Your task to perform on an android device: open chrome and create a bookmark for the current page Image 0: 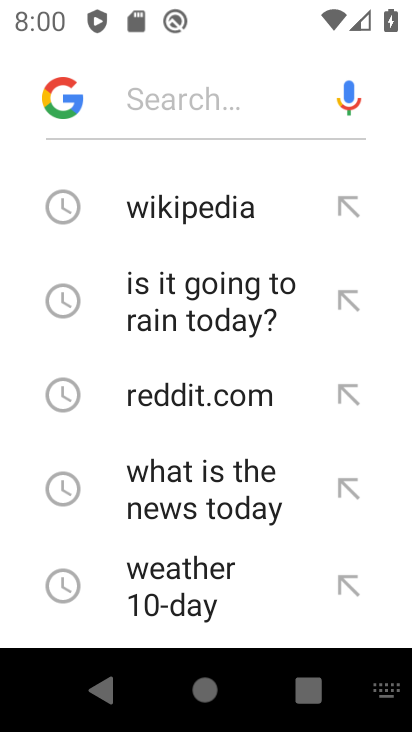
Step 0: press home button
Your task to perform on an android device: open chrome and create a bookmark for the current page Image 1: 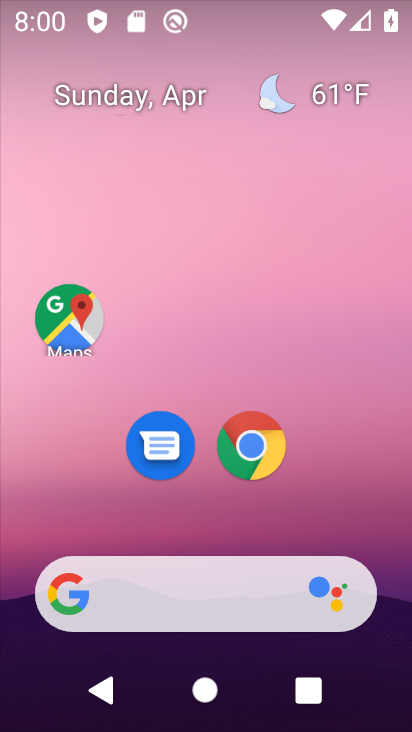
Step 1: click (241, 465)
Your task to perform on an android device: open chrome and create a bookmark for the current page Image 2: 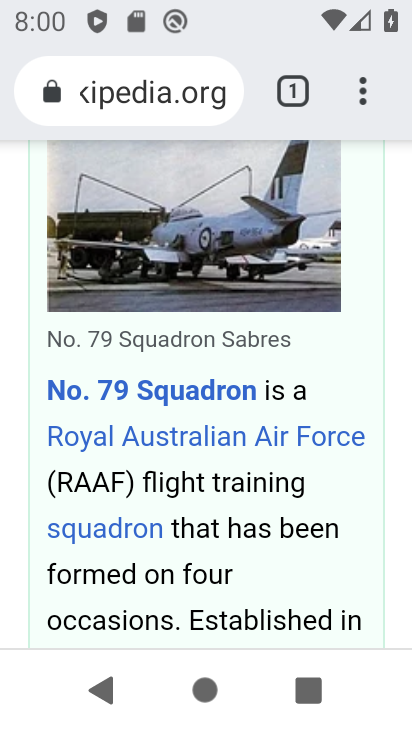
Step 2: click (296, 91)
Your task to perform on an android device: open chrome and create a bookmark for the current page Image 3: 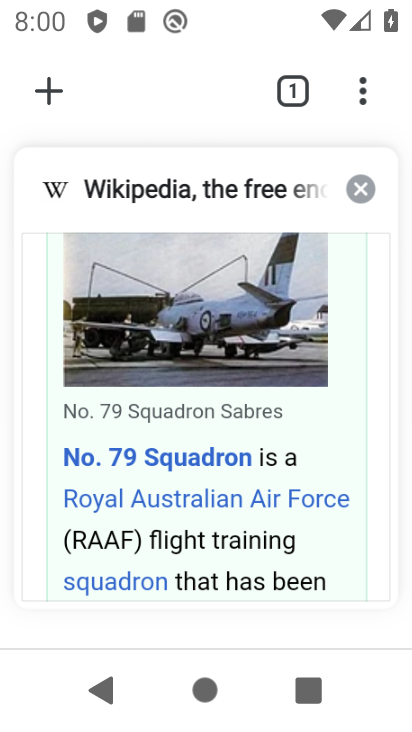
Step 3: click (47, 89)
Your task to perform on an android device: open chrome and create a bookmark for the current page Image 4: 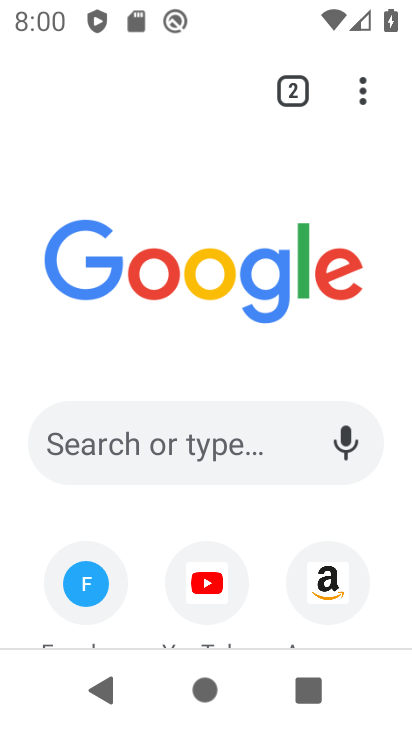
Step 4: click (174, 445)
Your task to perform on an android device: open chrome and create a bookmark for the current page Image 5: 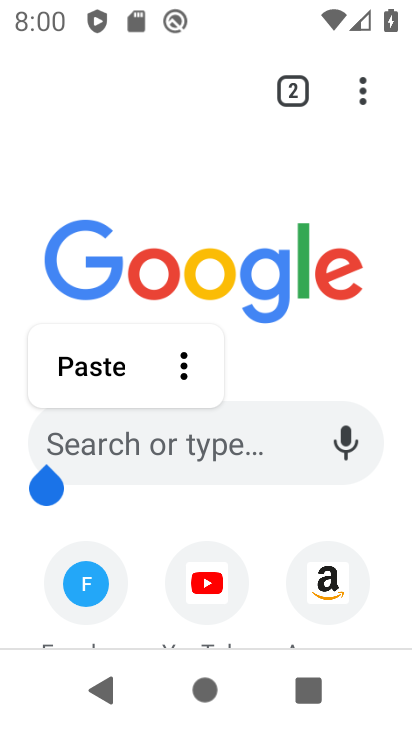
Step 5: type "fgjygfj"
Your task to perform on an android device: open chrome and create a bookmark for the current page Image 6: 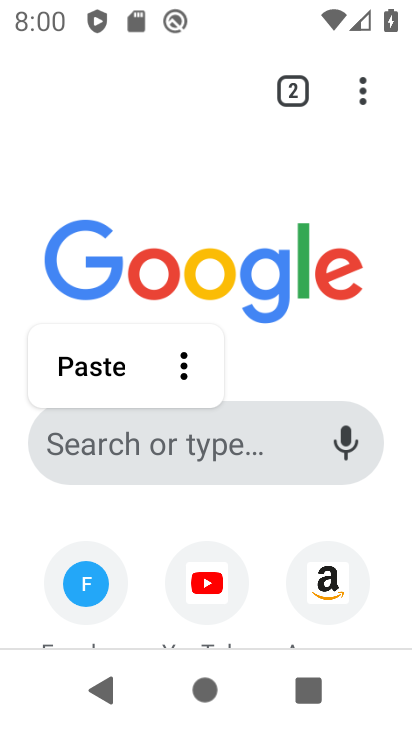
Step 6: click (152, 451)
Your task to perform on an android device: open chrome and create a bookmark for the current page Image 7: 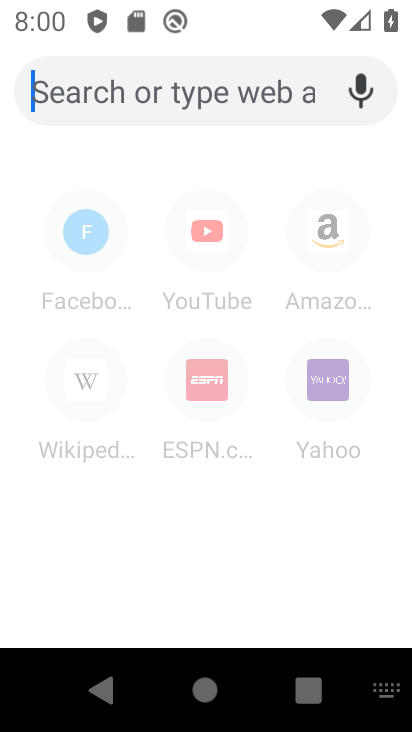
Step 7: type "gvgdjgf"
Your task to perform on an android device: open chrome and create a bookmark for the current page Image 8: 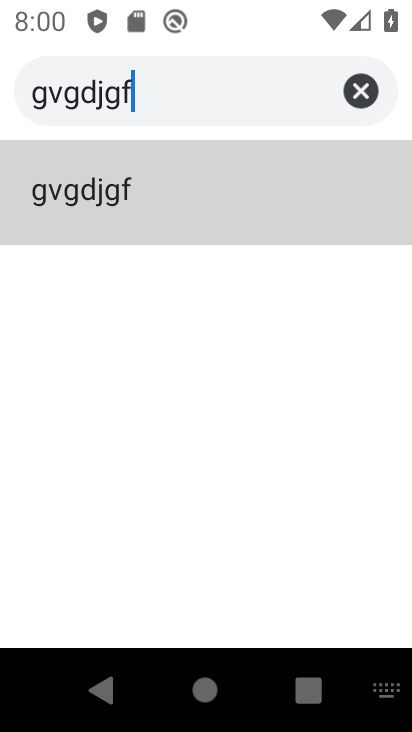
Step 8: click (207, 201)
Your task to perform on an android device: open chrome and create a bookmark for the current page Image 9: 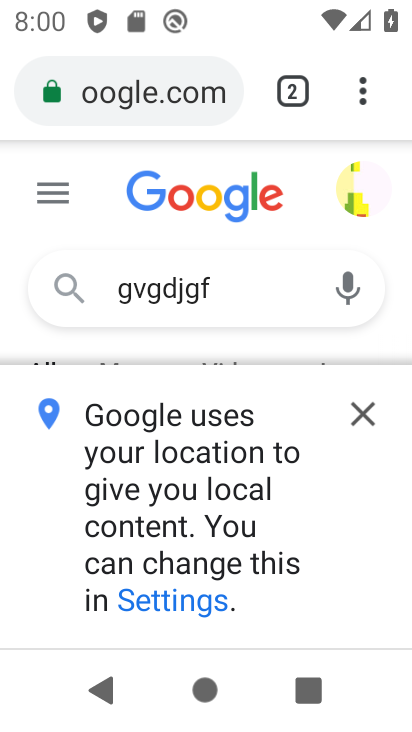
Step 9: click (356, 398)
Your task to perform on an android device: open chrome and create a bookmark for the current page Image 10: 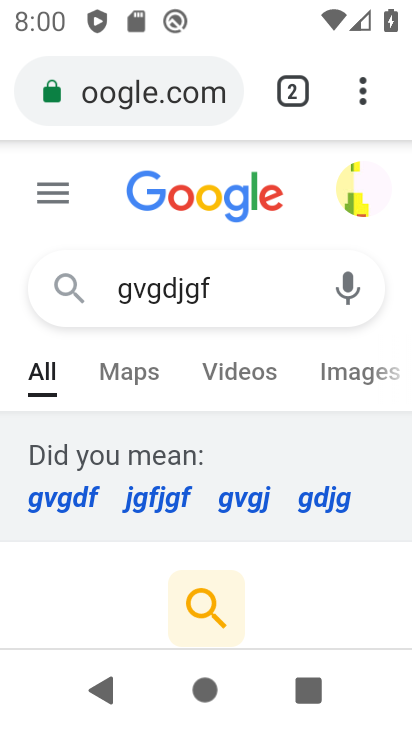
Step 10: drag from (191, 537) to (203, 212)
Your task to perform on an android device: open chrome and create a bookmark for the current page Image 11: 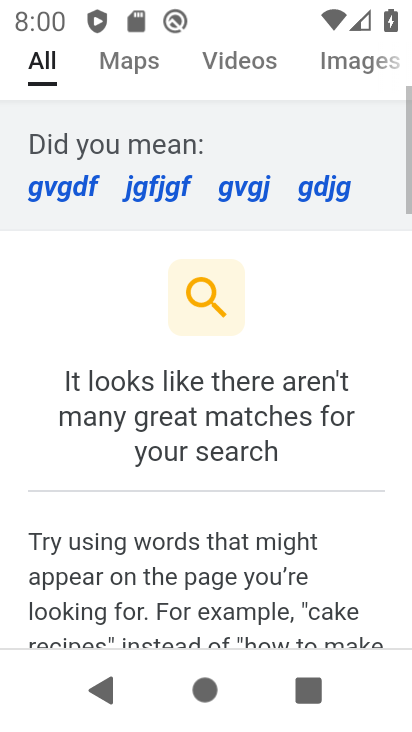
Step 11: drag from (210, 475) to (239, 161)
Your task to perform on an android device: open chrome and create a bookmark for the current page Image 12: 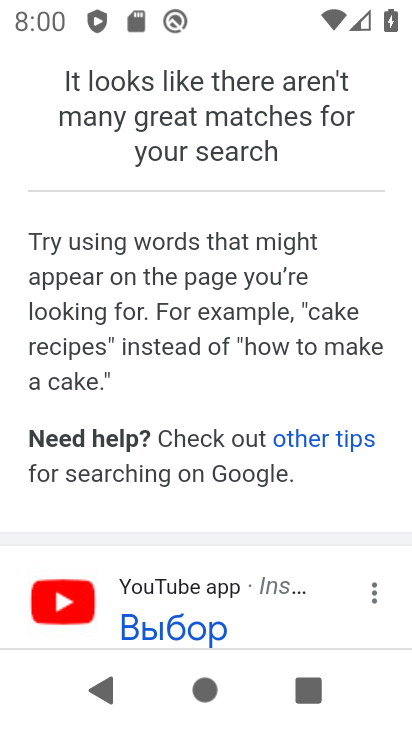
Step 12: drag from (213, 473) to (229, 293)
Your task to perform on an android device: open chrome and create a bookmark for the current page Image 13: 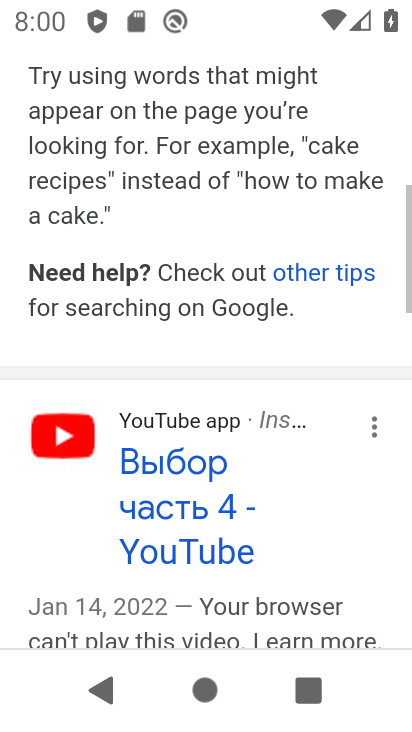
Step 13: drag from (210, 532) to (237, 303)
Your task to perform on an android device: open chrome and create a bookmark for the current page Image 14: 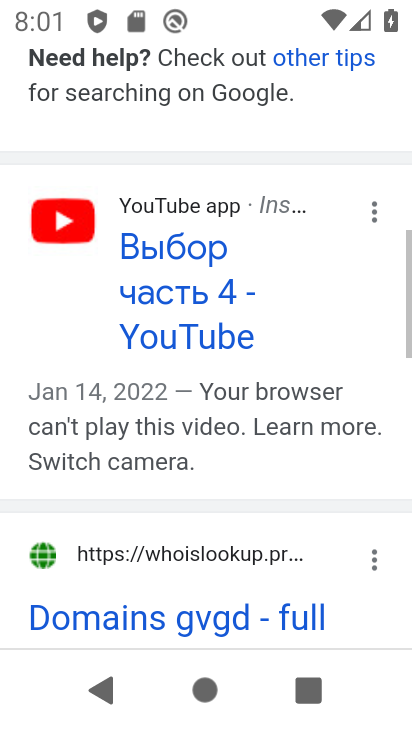
Step 14: drag from (226, 485) to (238, 293)
Your task to perform on an android device: open chrome and create a bookmark for the current page Image 15: 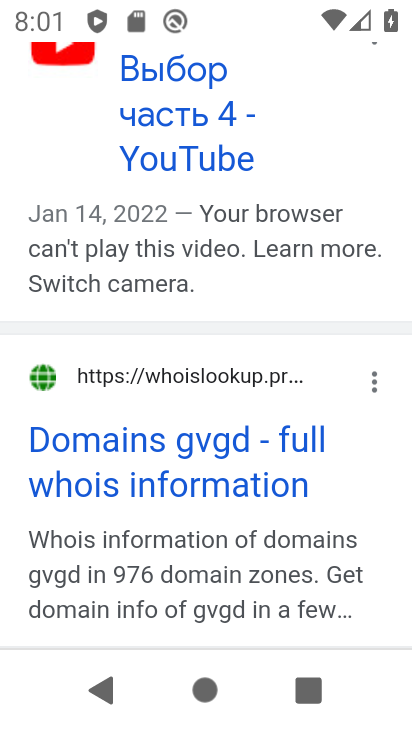
Step 15: click (135, 466)
Your task to perform on an android device: open chrome and create a bookmark for the current page Image 16: 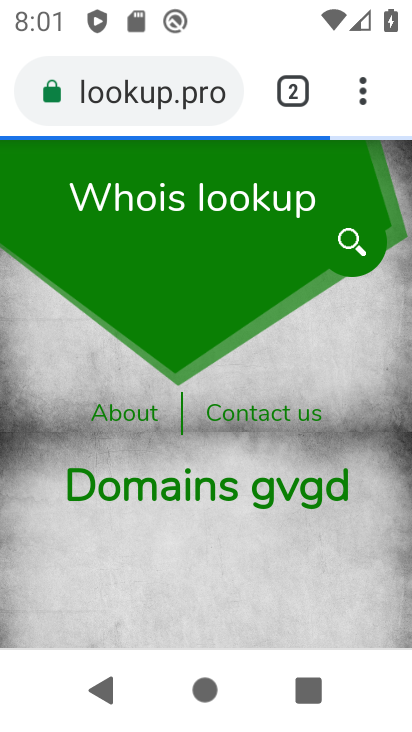
Step 16: task complete